Your task to perform on an android device: open device folders in google photos Image 0: 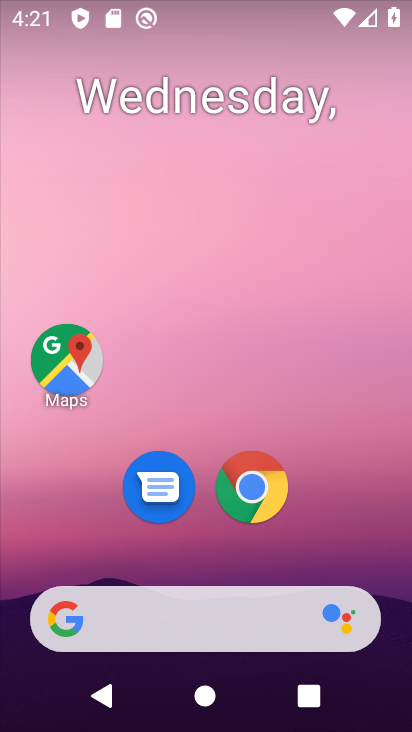
Step 0: drag from (356, 508) to (227, 16)
Your task to perform on an android device: open device folders in google photos Image 1: 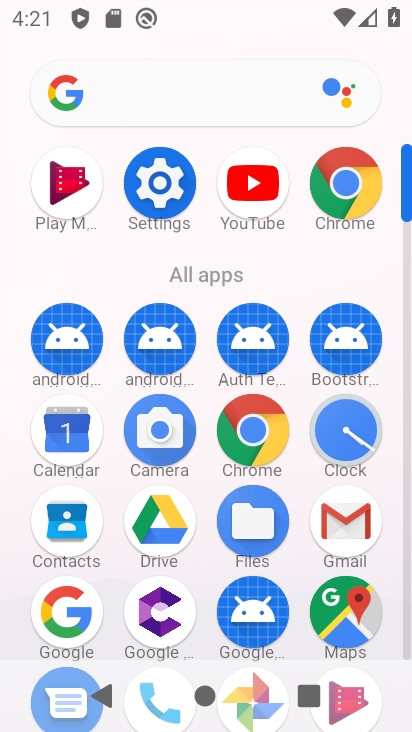
Step 1: drag from (315, 564) to (327, 215)
Your task to perform on an android device: open device folders in google photos Image 2: 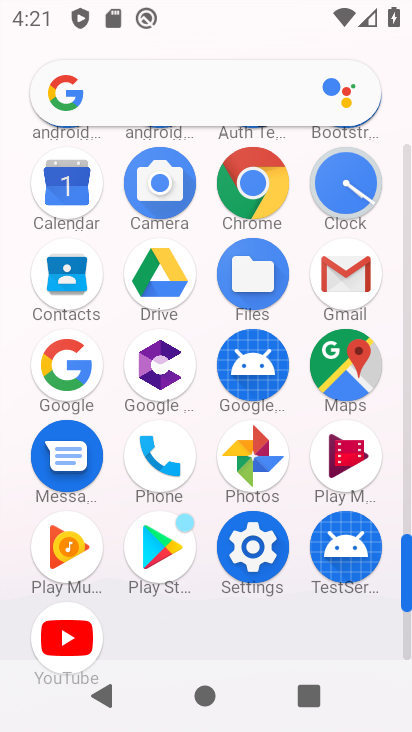
Step 2: click (257, 470)
Your task to perform on an android device: open device folders in google photos Image 3: 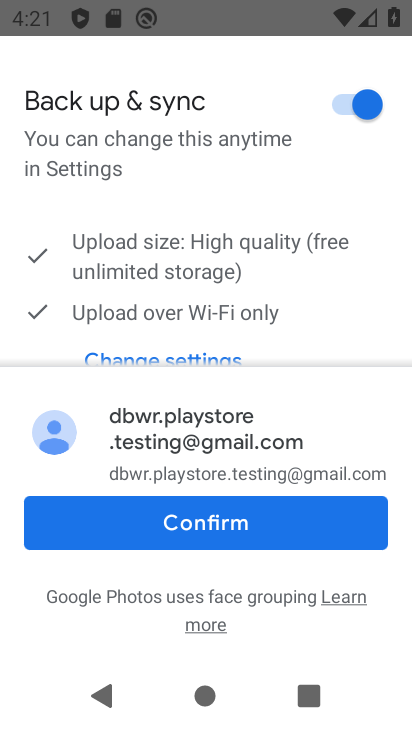
Step 3: click (263, 517)
Your task to perform on an android device: open device folders in google photos Image 4: 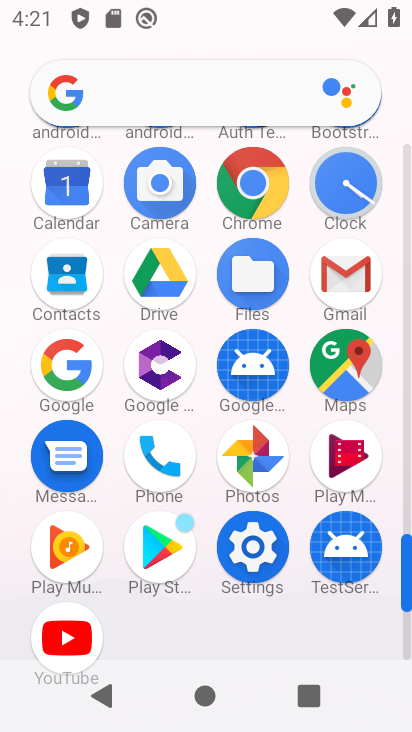
Step 4: click (274, 451)
Your task to perform on an android device: open device folders in google photos Image 5: 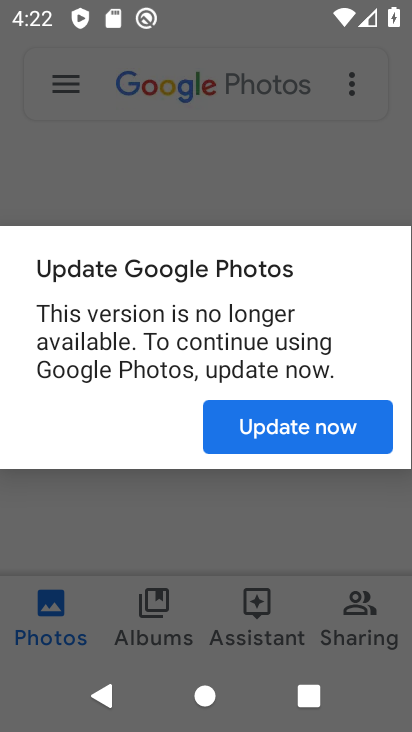
Step 5: click (353, 427)
Your task to perform on an android device: open device folders in google photos Image 6: 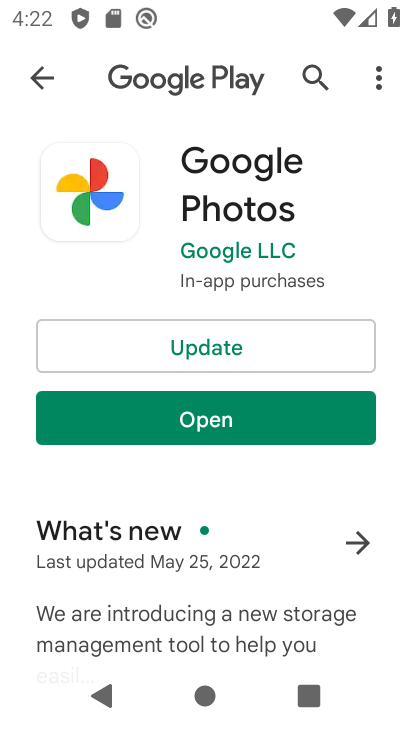
Step 6: click (266, 336)
Your task to perform on an android device: open device folders in google photos Image 7: 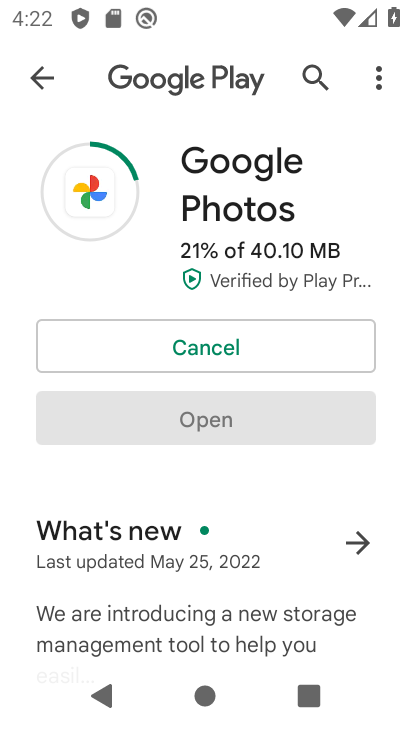
Step 7: task complete